Your task to perform on an android device: Turn on the flashlight Image 0: 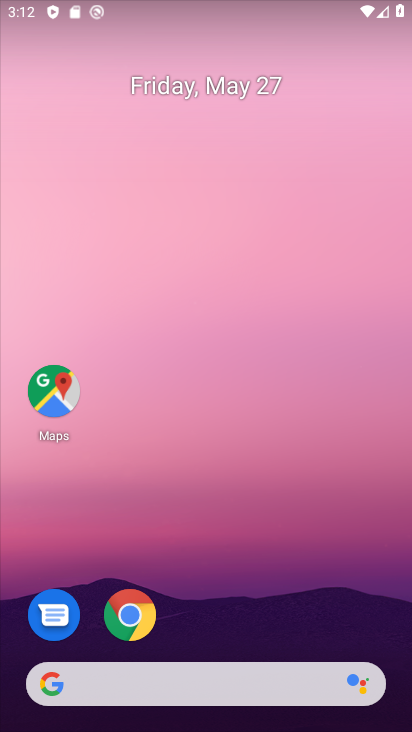
Step 0: drag from (164, 14) to (202, 700)
Your task to perform on an android device: Turn on the flashlight Image 1: 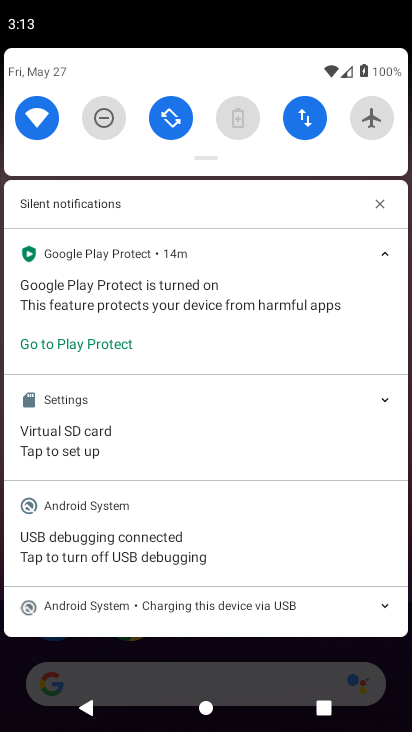
Step 1: drag from (199, 161) to (229, 668)
Your task to perform on an android device: Turn on the flashlight Image 2: 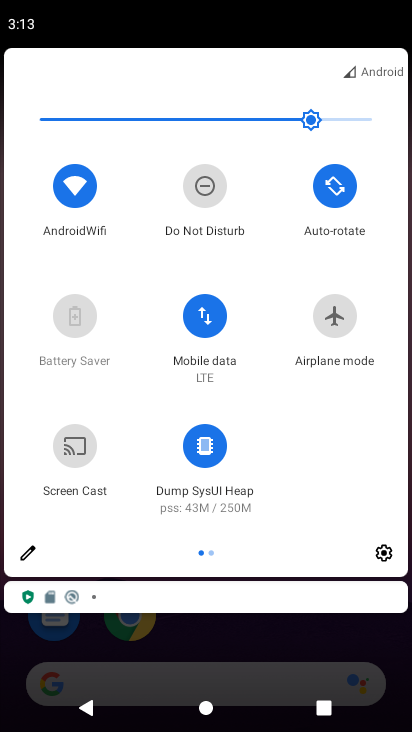
Step 2: click (28, 556)
Your task to perform on an android device: Turn on the flashlight Image 3: 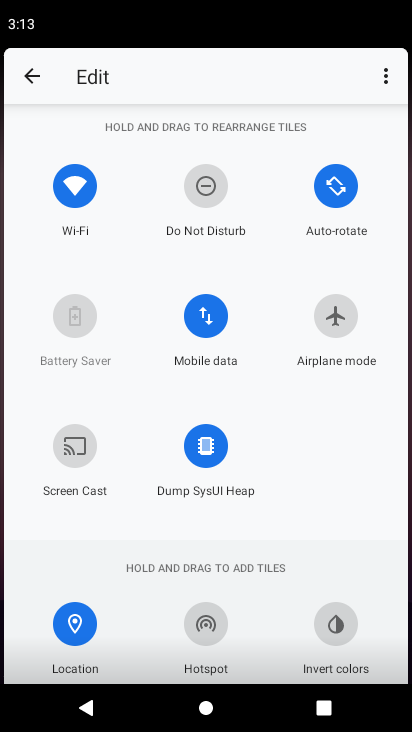
Step 3: task complete